Your task to perform on an android device: What's the weather today? Image 0: 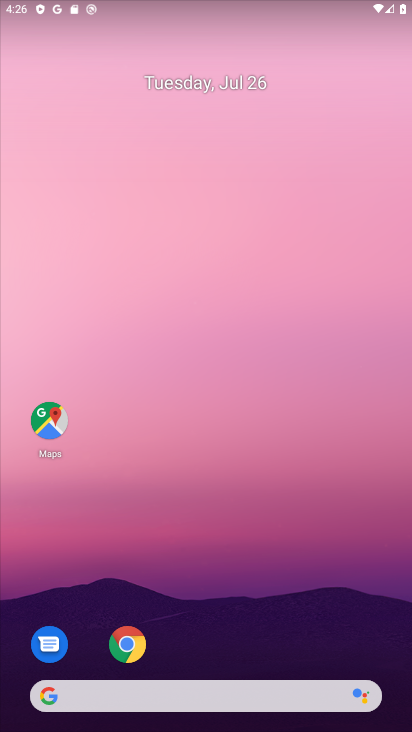
Step 0: drag from (213, 633) to (247, 137)
Your task to perform on an android device: What's the weather today? Image 1: 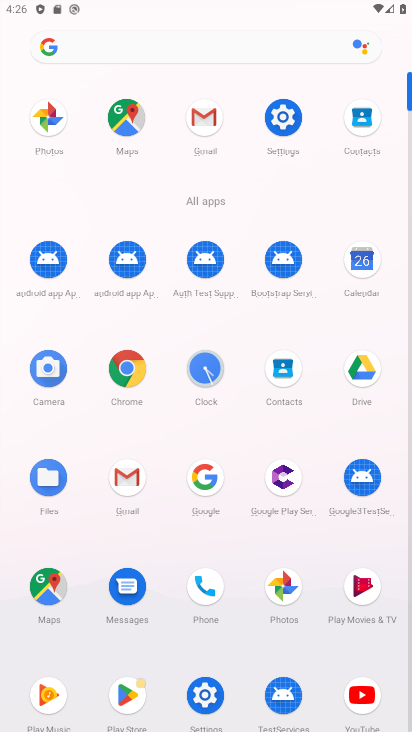
Step 1: click (133, 361)
Your task to perform on an android device: What's the weather today? Image 2: 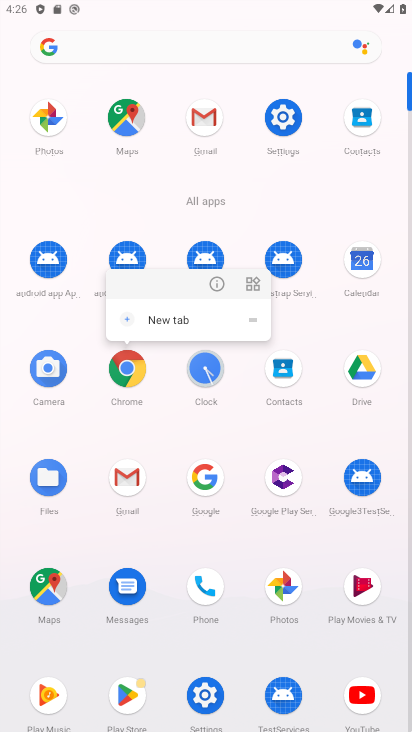
Step 2: click (137, 364)
Your task to perform on an android device: What's the weather today? Image 3: 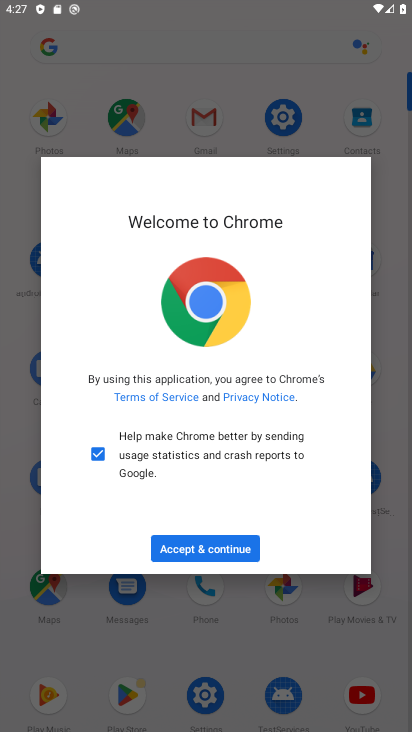
Step 3: click (229, 554)
Your task to perform on an android device: What's the weather today? Image 4: 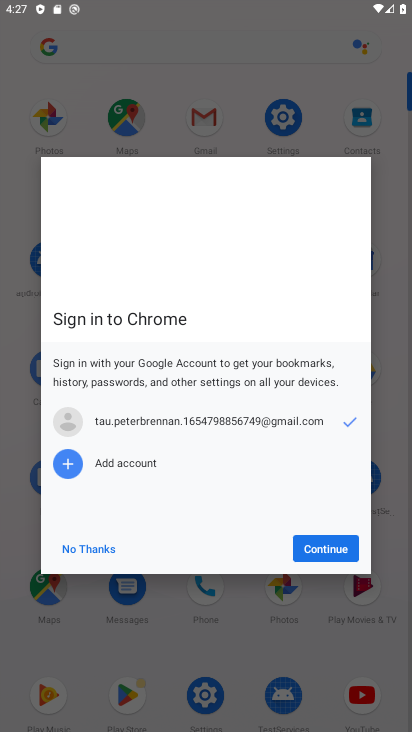
Step 4: click (322, 548)
Your task to perform on an android device: What's the weather today? Image 5: 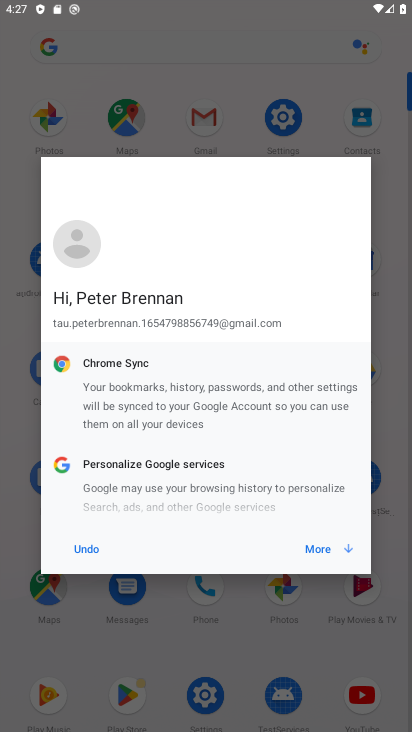
Step 5: click (322, 548)
Your task to perform on an android device: What's the weather today? Image 6: 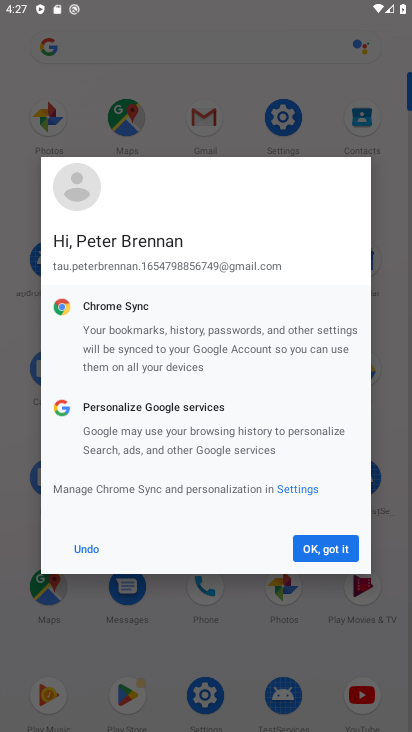
Step 6: click (322, 548)
Your task to perform on an android device: What's the weather today? Image 7: 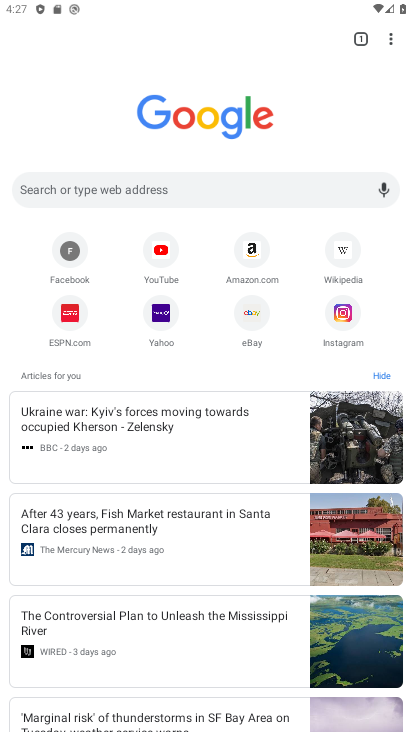
Step 7: click (55, 194)
Your task to perform on an android device: What's the weather today? Image 8: 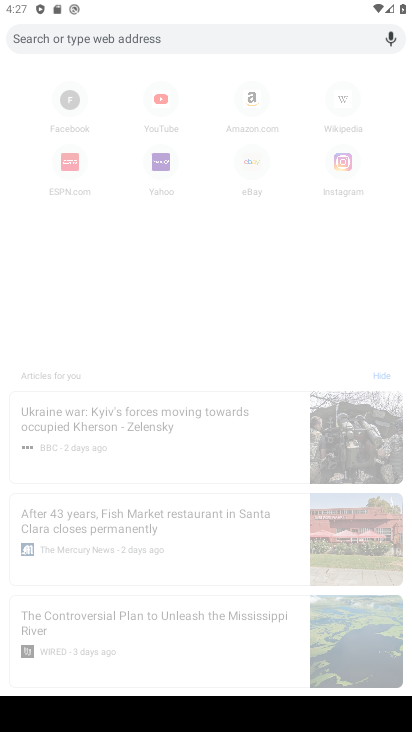
Step 8: type "What's the weather today?"
Your task to perform on an android device: What's the weather today? Image 9: 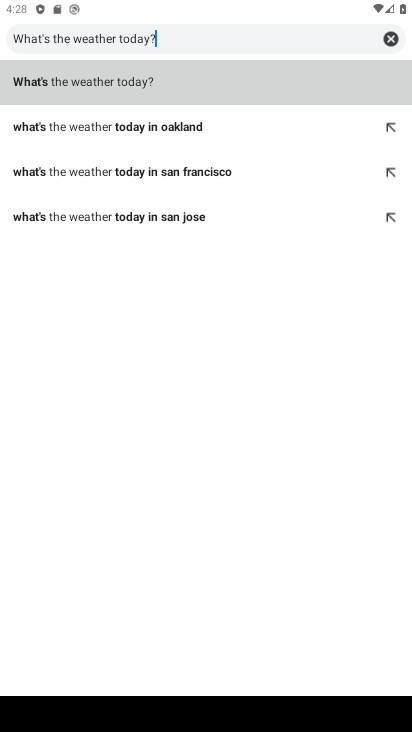
Step 9: click (61, 83)
Your task to perform on an android device: What's the weather today? Image 10: 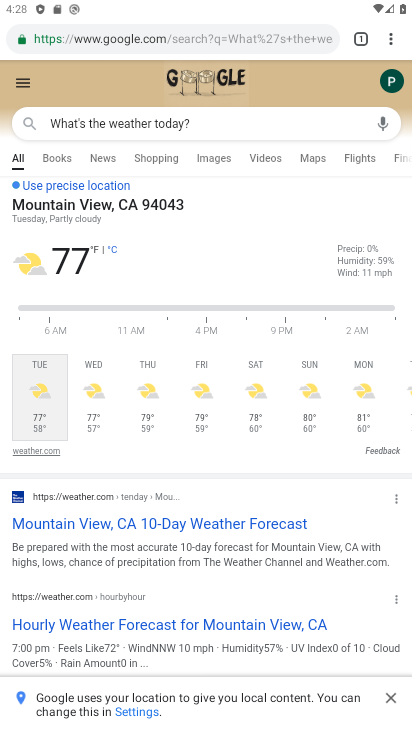
Step 10: task complete